Your task to perform on an android device: When is my next appointment? Image 0: 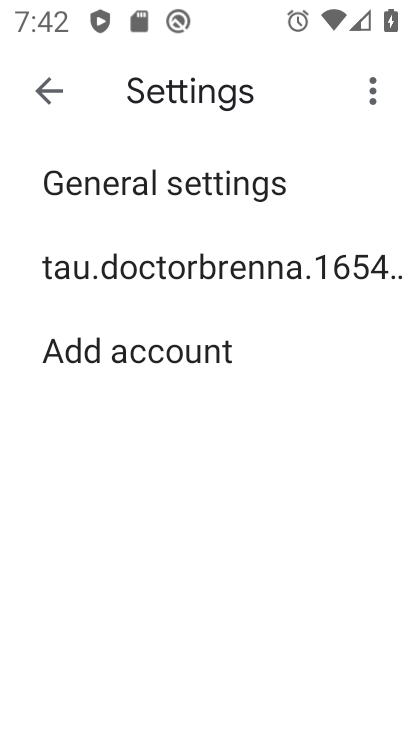
Step 0: press home button
Your task to perform on an android device: When is my next appointment? Image 1: 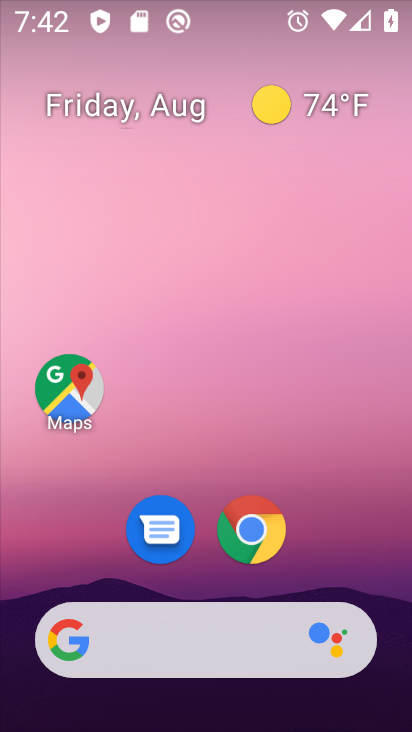
Step 1: drag from (173, 628) to (253, 121)
Your task to perform on an android device: When is my next appointment? Image 2: 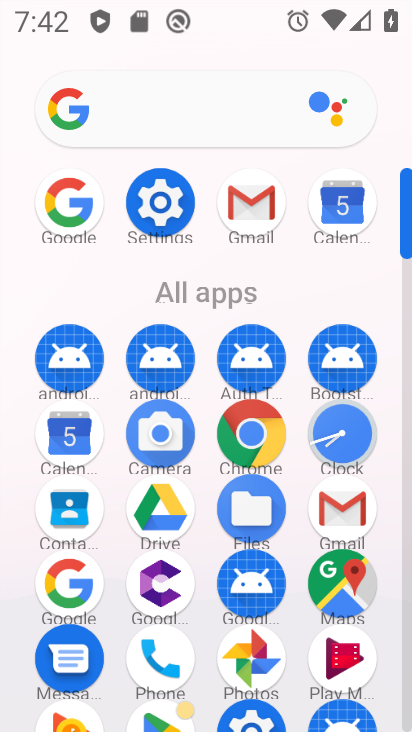
Step 2: click (345, 207)
Your task to perform on an android device: When is my next appointment? Image 3: 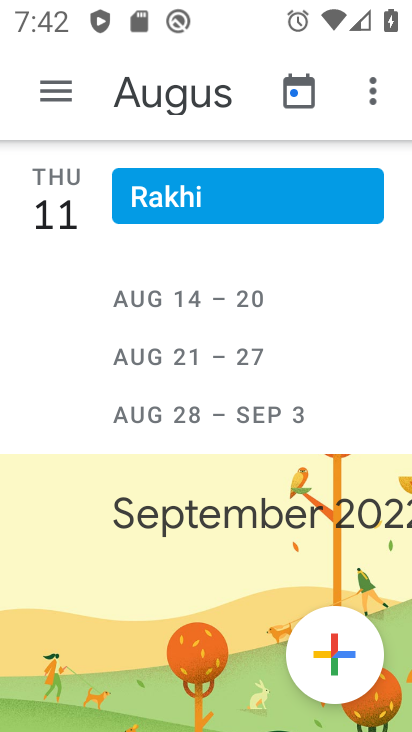
Step 3: click (301, 92)
Your task to perform on an android device: When is my next appointment? Image 4: 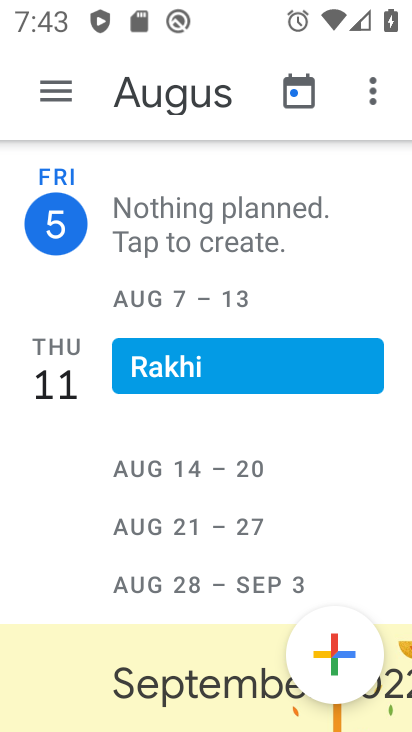
Step 4: click (211, 107)
Your task to perform on an android device: When is my next appointment? Image 5: 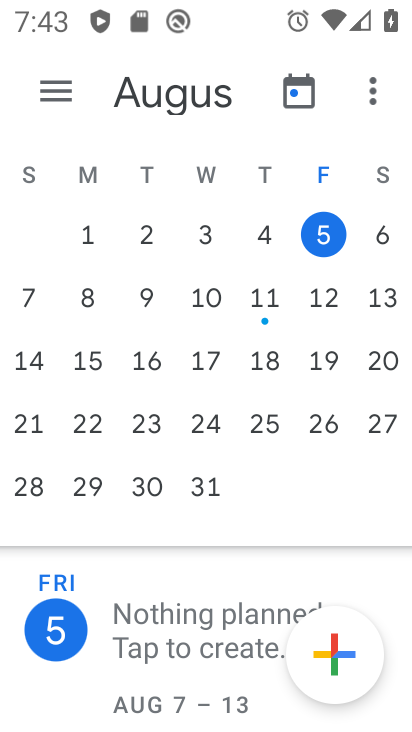
Step 5: click (380, 238)
Your task to perform on an android device: When is my next appointment? Image 6: 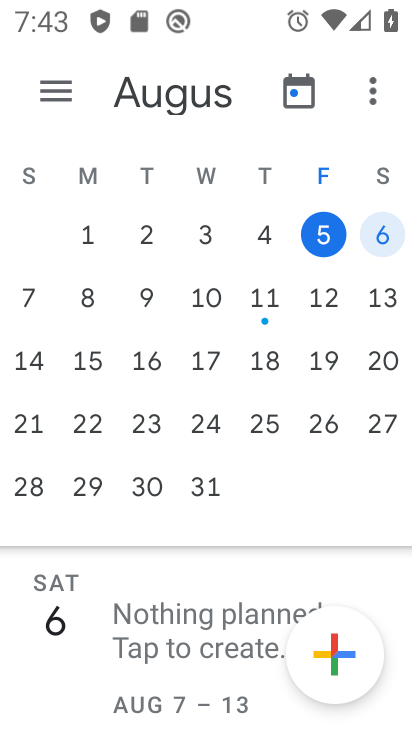
Step 6: click (49, 100)
Your task to perform on an android device: When is my next appointment? Image 7: 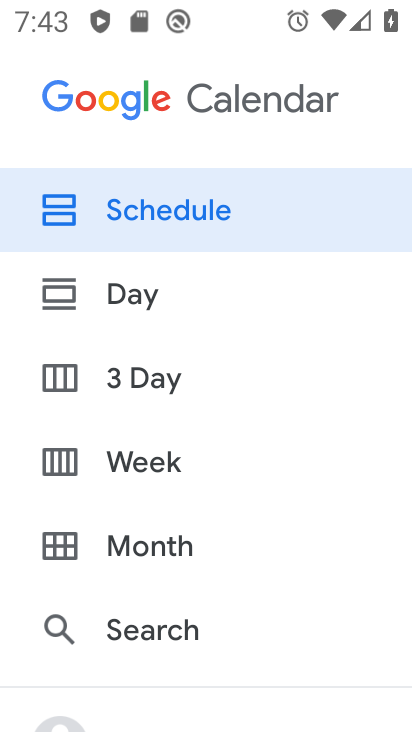
Step 7: click (153, 222)
Your task to perform on an android device: When is my next appointment? Image 8: 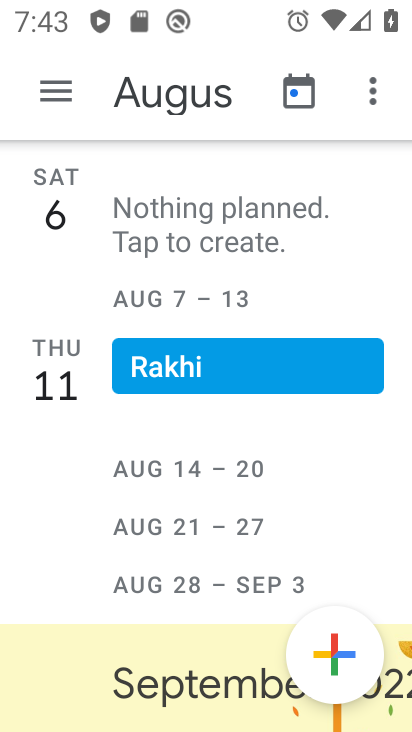
Step 8: task complete